Your task to perform on an android device: open a new tab in the chrome app Image 0: 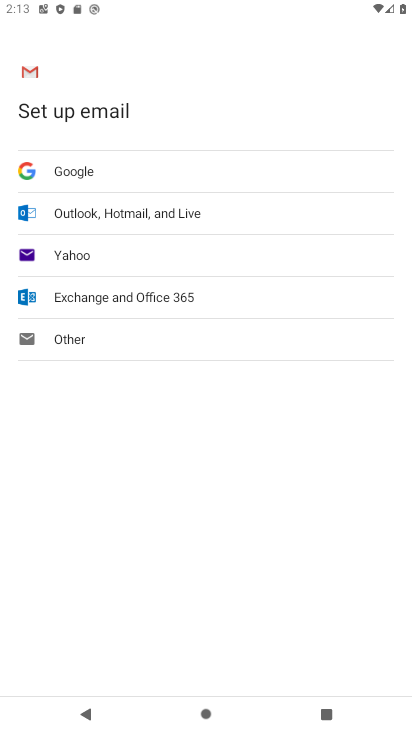
Step 0: press back button
Your task to perform on an android device: open a new tab in the chrome app Image 1: 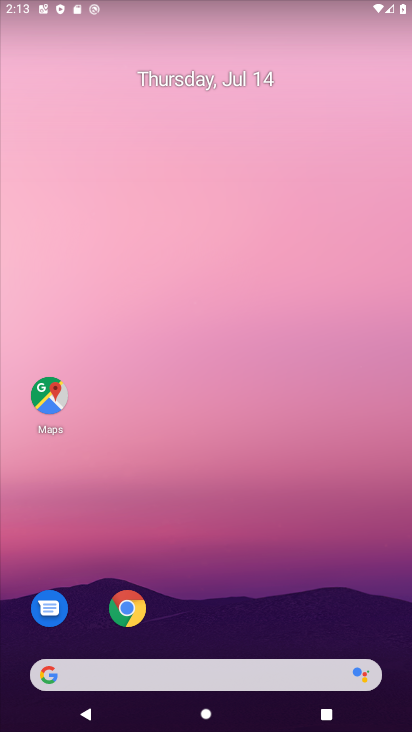
Step 1: drag from (240, 579) to (330, 15)
Your task to perform on an android device: open a new tab in the chrome app Image 2: 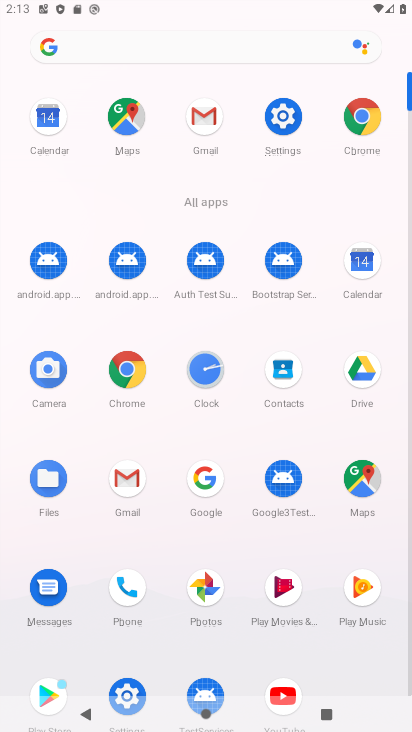
Step 2: click (356, 126)
Your task to perform on an android device: open a new tab in the chrome app Image 3: 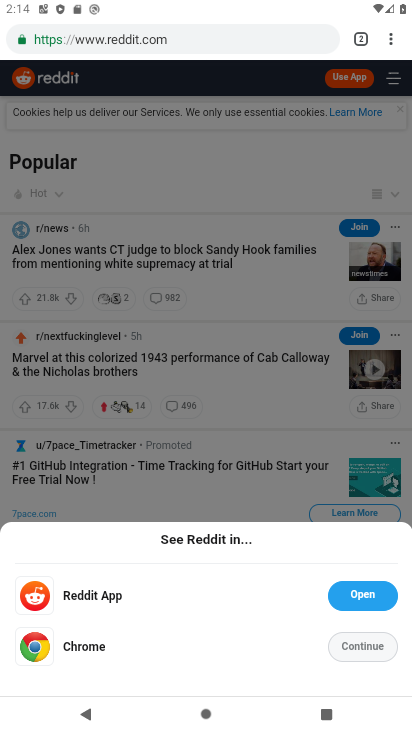
Step 3: task complete